Your task to perform on an android device: Go to Yahoo.com Image 0: 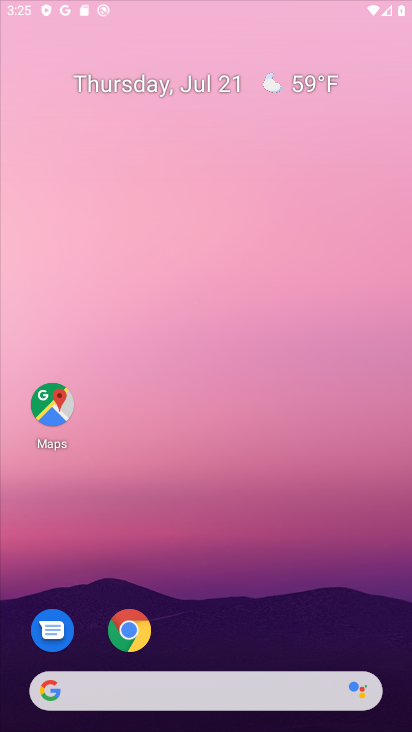
Step 0: click (175, 208)
Your task to perform on an android device: Go to Yahoo.com Image 1: 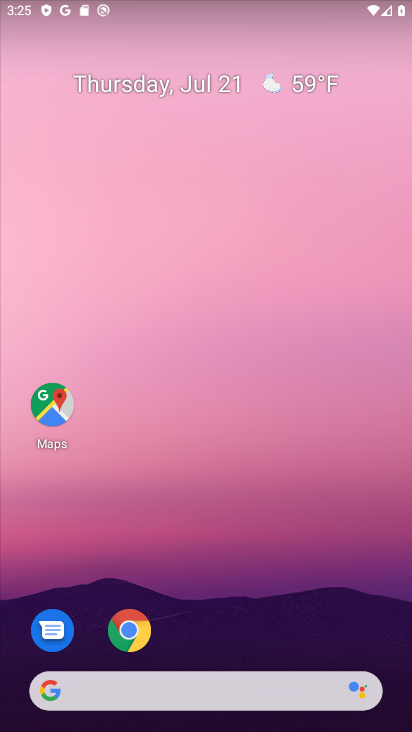
Step 1: drag from (177, 383) to (152, 79)
Your task to perform on an android device: Go to Yahoo.com Image 2: 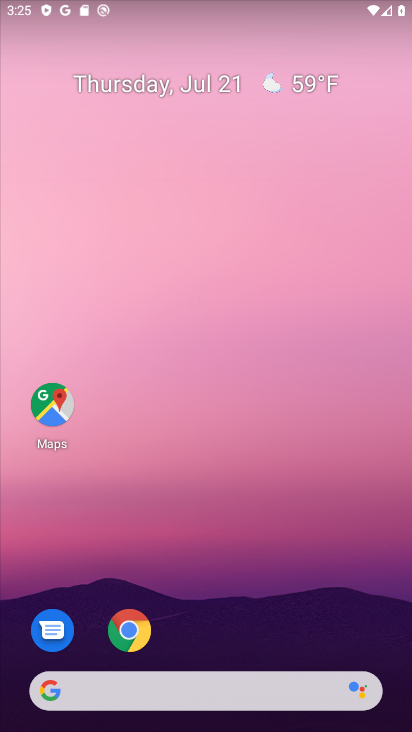
Step 2: drag from (195, 409) to (218, 88)
Your task to perform on an android device: Go to Yahoo.com Image 3: 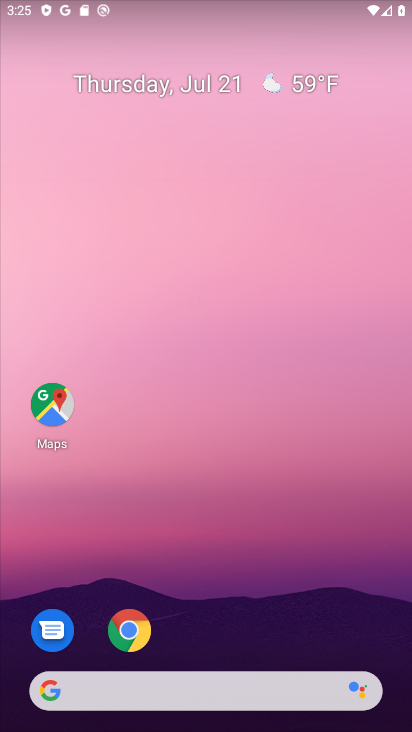
Step 3: drag from (214, 466) to (189, 67)
Your task to perform on an android device: Go to Yahoo.com Image 4: 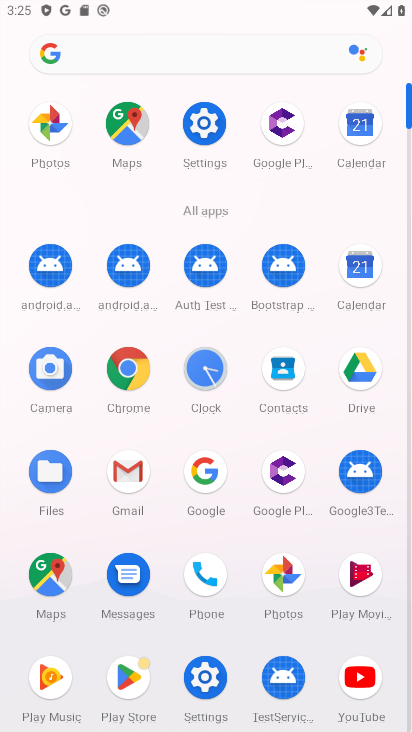
Step 4: click (129, 377)
Your task to perform on an android device: Go to Yahoo.com Image 5: 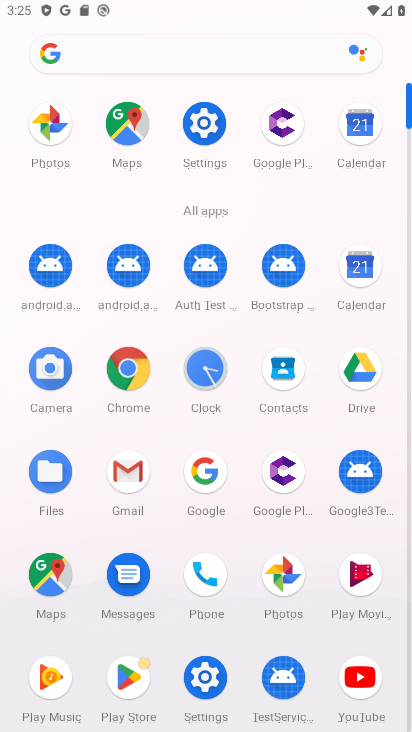
Step 5: click (131, 377)
Your task to perform on an android device: Go to Yahoo.com Image 6: 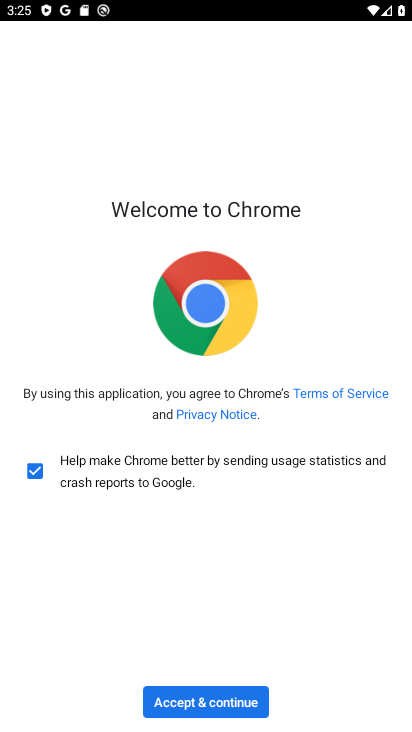
Step 6: click (213, 692)
Your task to perform on an android device: Go to Yahoo.com Image 7: 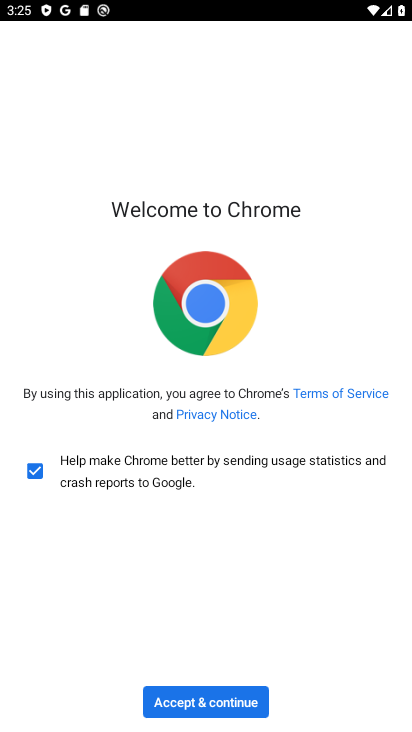
Step 7: click (215, 693)
Your task to perform on an android device: Go to Yahoo.com Image 8: 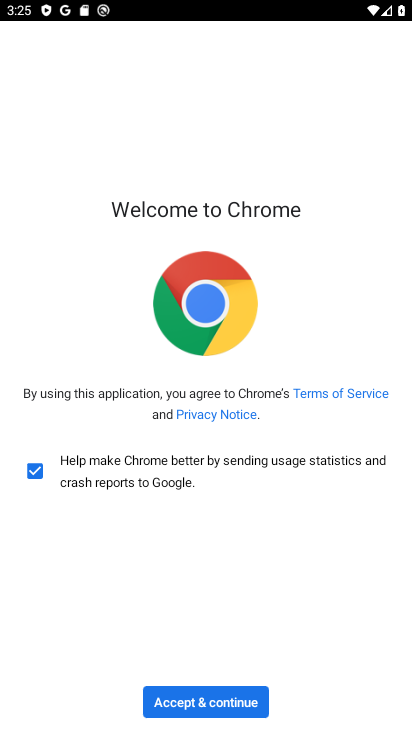
Step 8: click (217, 695)
Your task to perform on an android device: Go to Yahoo.com Image 9: 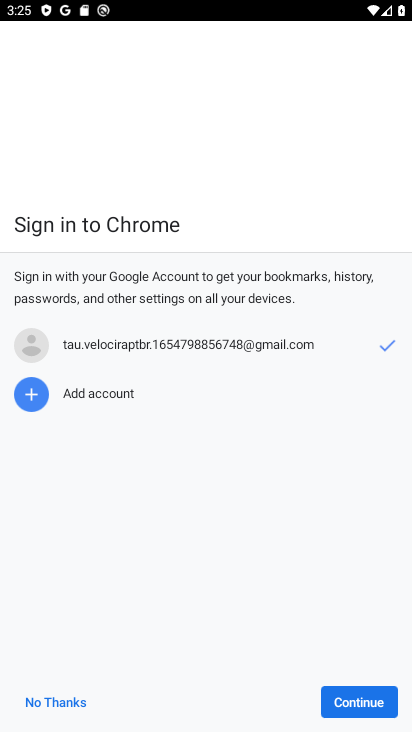
Step 9: click (220, 697)
Your task to perform on an android device: Go to Yahoo.com Image 10: 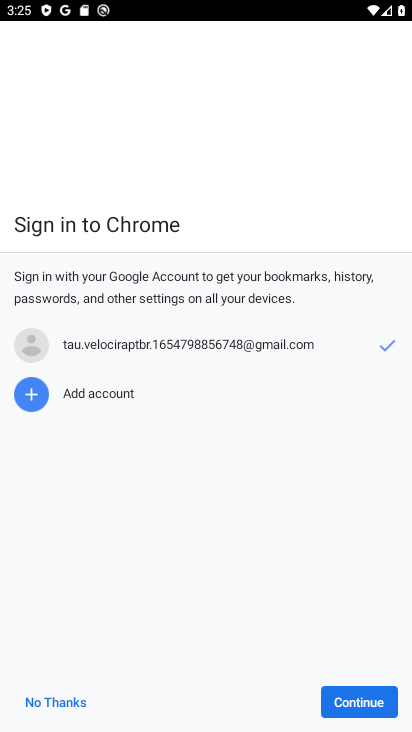
Step 10: click (221, 697)
Your task to perform on an android device: Go to Yahoo.com Image 11: 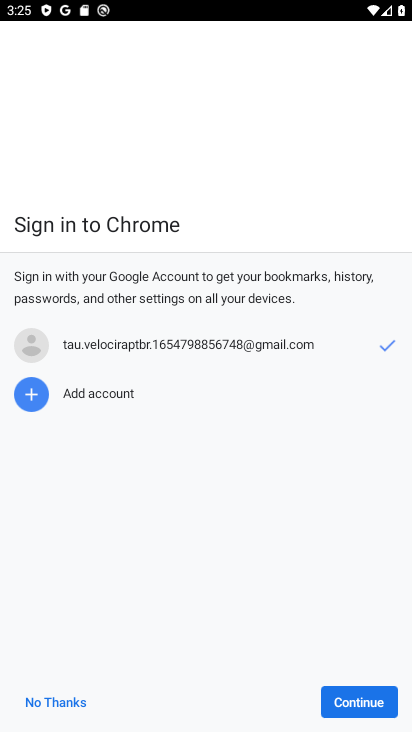
Step 11: click (51, 696)
Your task to perform on an android device: Go to Yahoo.com Image 12: 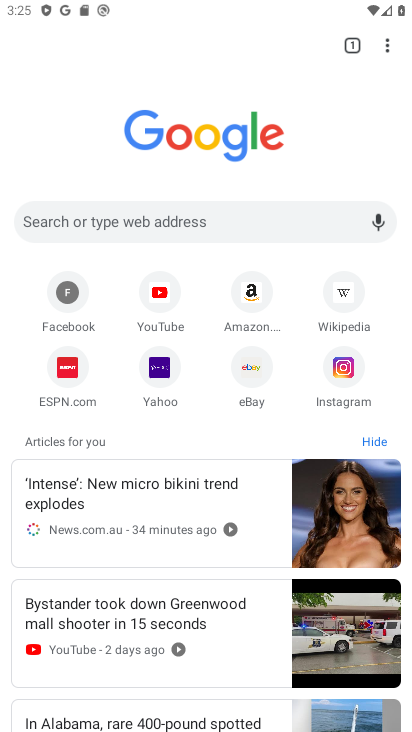
Step 12: click (165, 361)
Your task to perform on an android device: Go to Yahoo.com Image 13: 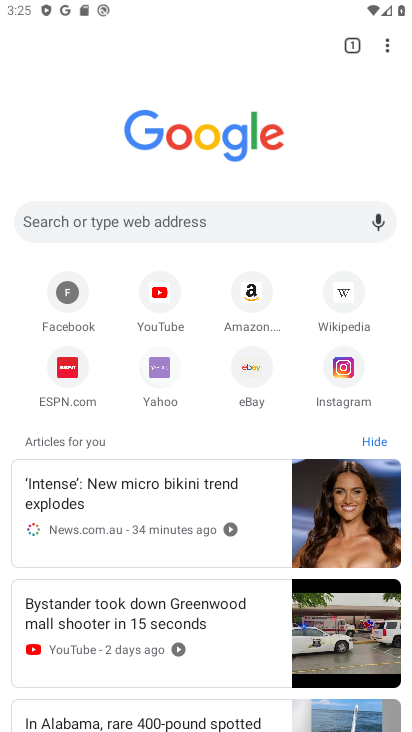
Step 13: click (165, 361)
Your task to perform on an android device: Go to Yahoo.com Image 14: 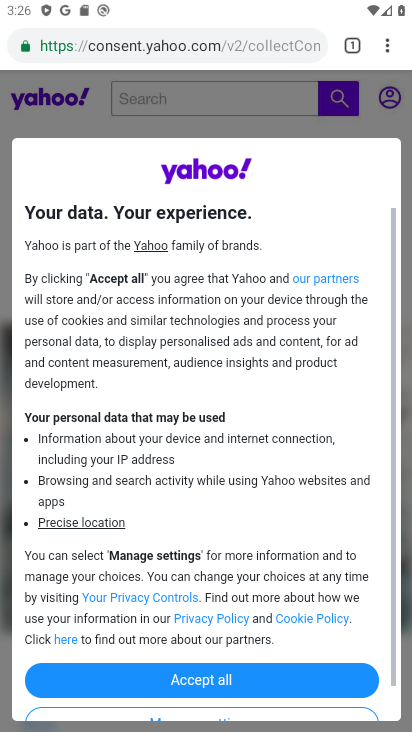
Step 14: task complete